Your task to perform on an android device: Show me popular videos on Youtube Image 0: 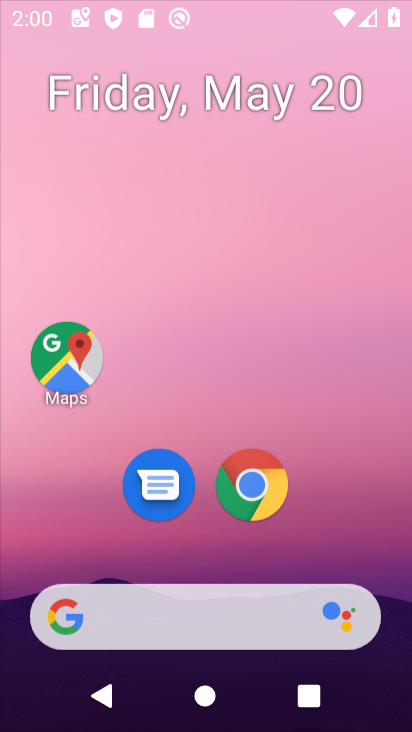
Step 0: click (411, 148)
Your task to perform on an android device: Show me popular videos on Youtube Image 1: 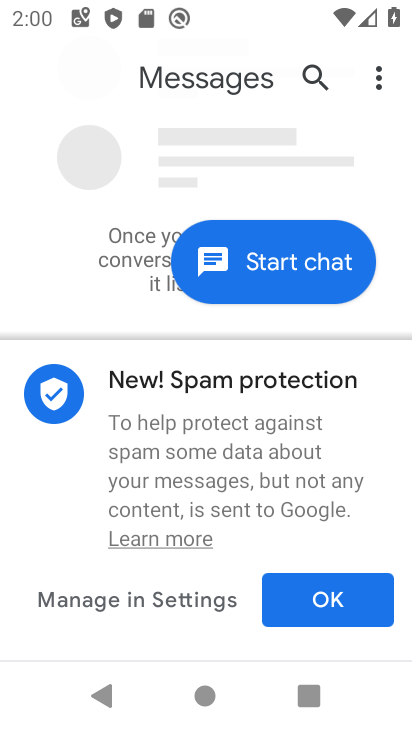
Step 1: press home button
Your task to perform on an android device: Show me popular videos on Youtube Image 2: 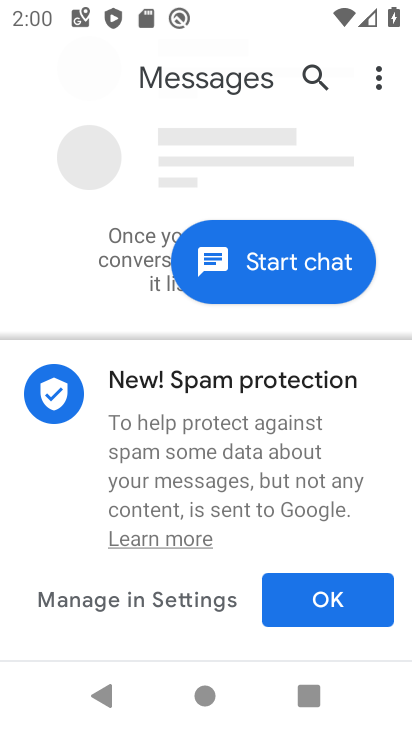
Step 2: drag from (411, 148) to (401, 419)
Your task to perform on an android device: Show me popular videos on Youtube Image 3: 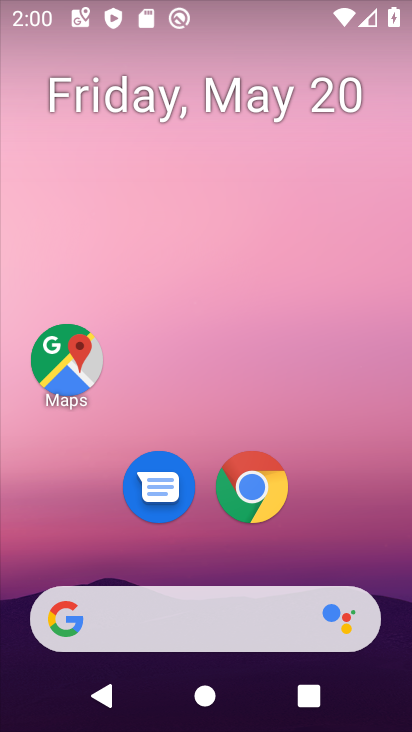
Step 3: drag from (355, 497) to (382, 54)
Your task to perform on an android device: Show me popular videos on Youtube Image 4: 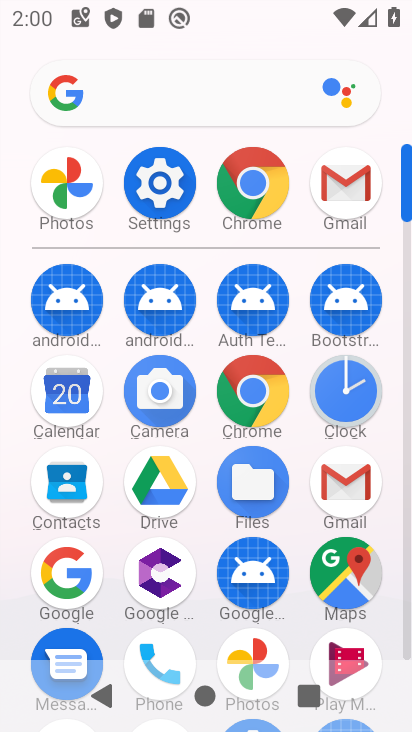
Step 4: drag from (379, 635) to (401, 253)
Your task to perform on an android device: Show me popular videos on Youtube Image 5: 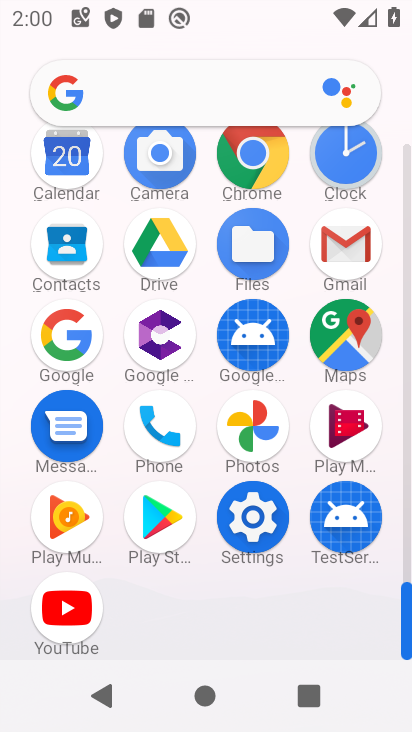
Step 5: click (74, 641)
Your task to perform on an android device: Show me popular videos on Youtube Image 6: 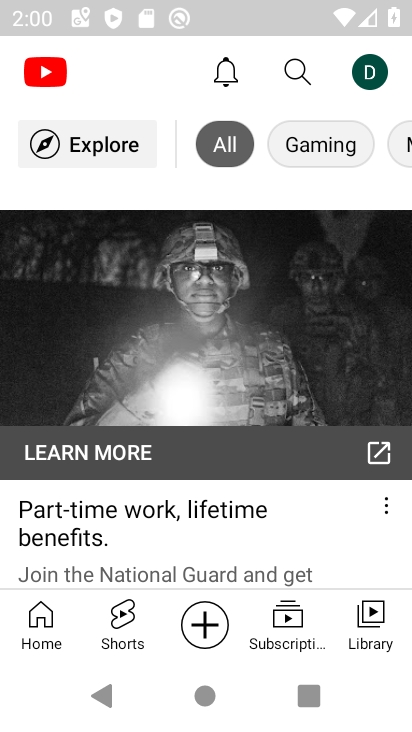
Step 6: click (297, 52)
Your task to perform on an android device: Show me popular videos on Youtube Image 7: 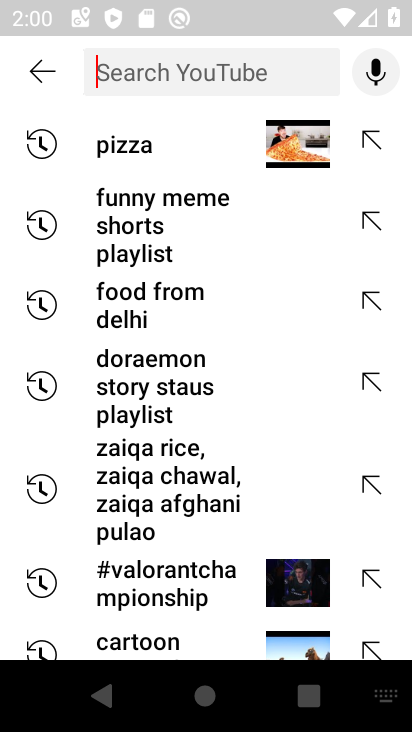
Step 7: type "popular vidoes"
Your task to perform on an android device: Show me popular videos on Youtube Image 8: 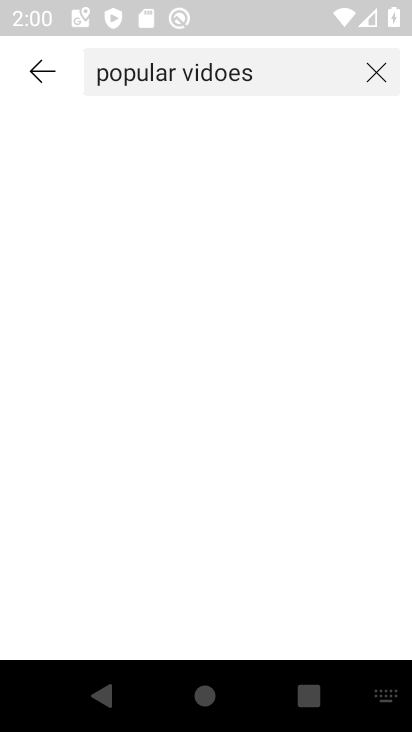
Step 8: press enter
Your task to perform on an android device: Show me popular videos on Youtube Image 9: 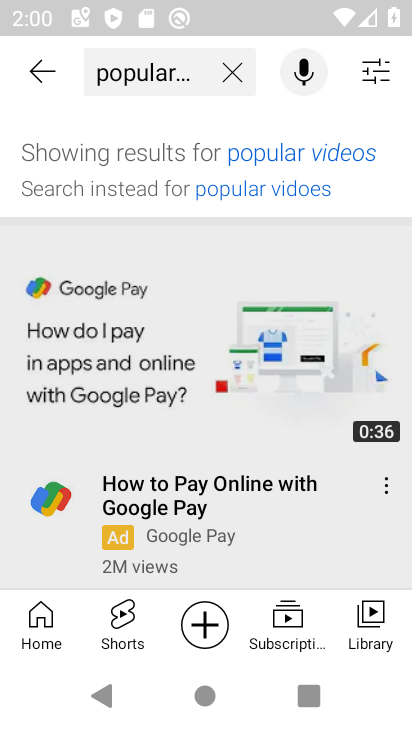
Step 9: task complete